Your task to perform on an android device: turn off wifi Image 0: 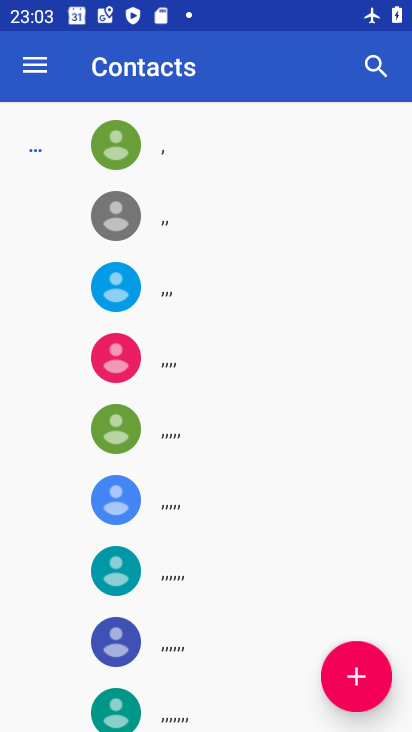
Step 0: press home button
Your task to perform on an android device: turn off wifi Image 1: 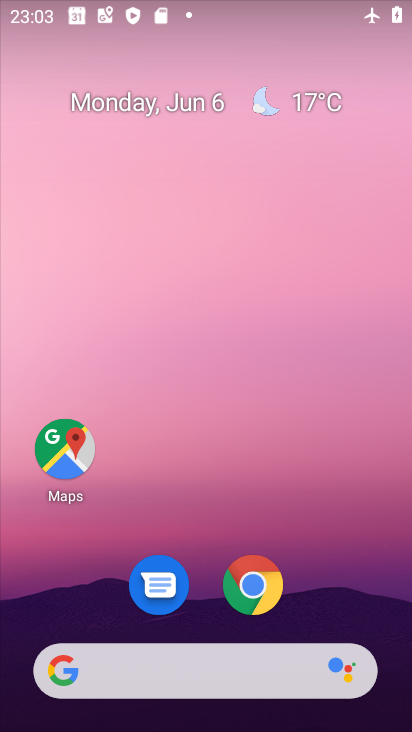
Step 1: drag from (209, 462) to (232, 0)
Your task to perform on an android device: turn off wifi Image 2: 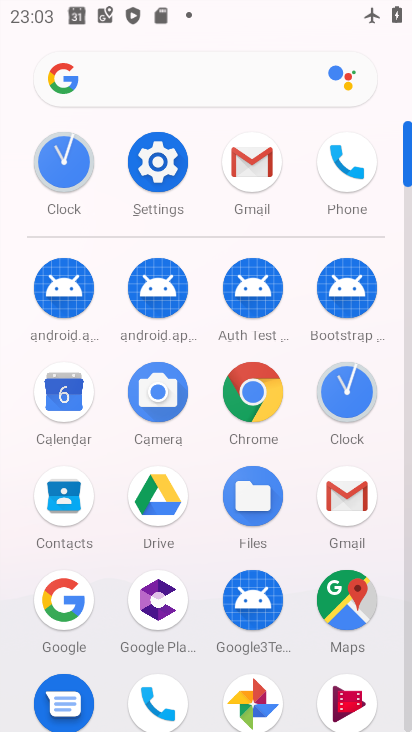
Step 2: click (159, 156)
Your task to perform on an android device: turn off wifi Image 3: 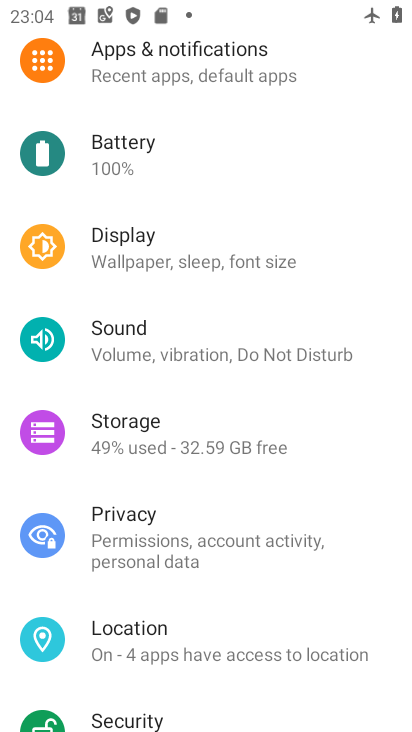
Step 3: drag from (221, 256) to (260, 646)
Your task to perform on an android device: turn off wifi Image 4: 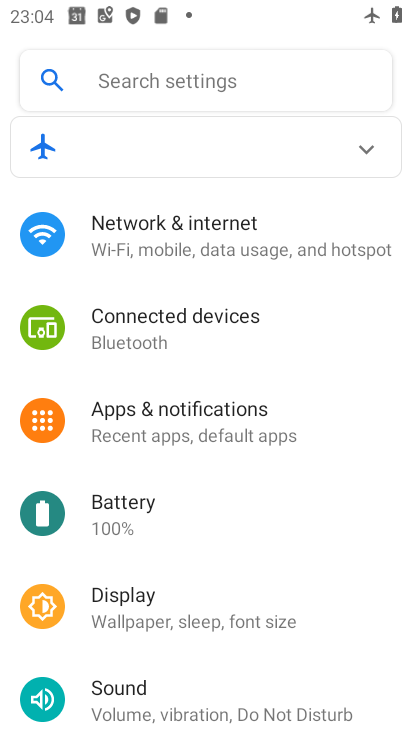
Step 4: click (146, 232)
Your task to perform on an android device: turn off wifi Image 5: 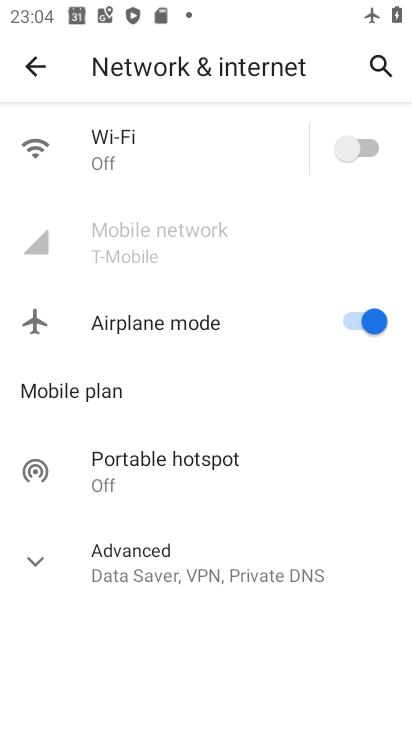
Step 5: task complete